Your task to perform on an android device: Open calendar and show me the third week of next month Image 0: 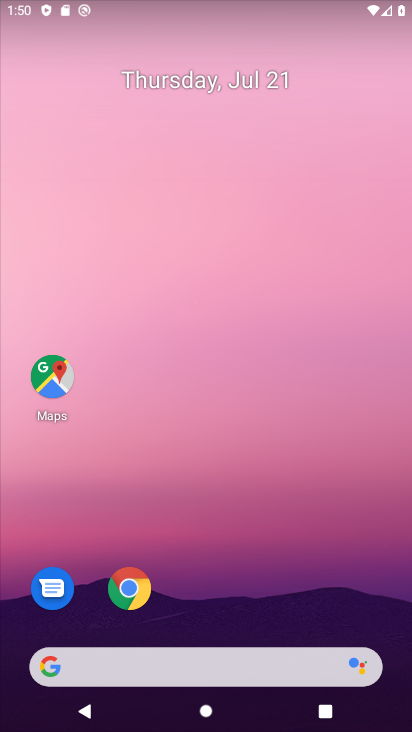
Step 0: drag from (163, 619) to (293, 170)
Your task to perform on an android device: Open calendar and show me the third week of next month Image 1: 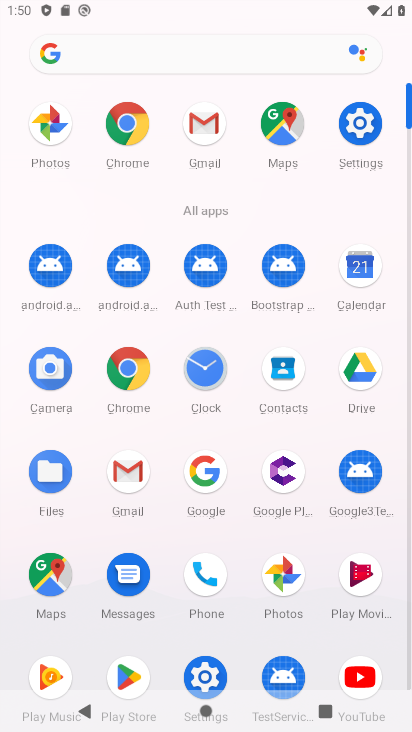
Step 1: click (366, 258)
Your task to perform on an android device: Open calendar and show me the third week of next month Image 2: 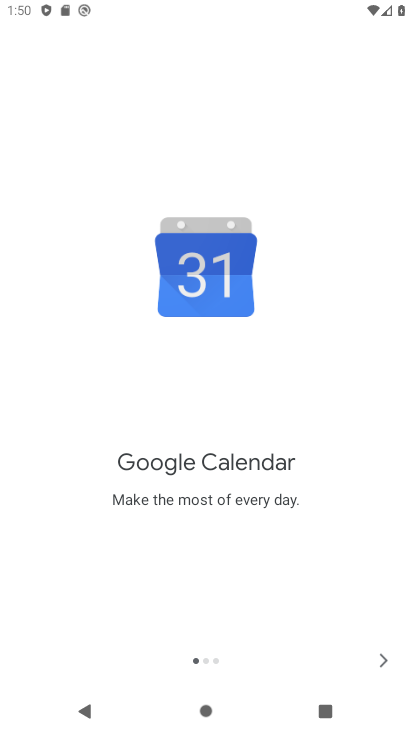
Step 2: click (388, 660)
Your task to perform on an android device: Open calendar and show me the third week of next month Image 3: 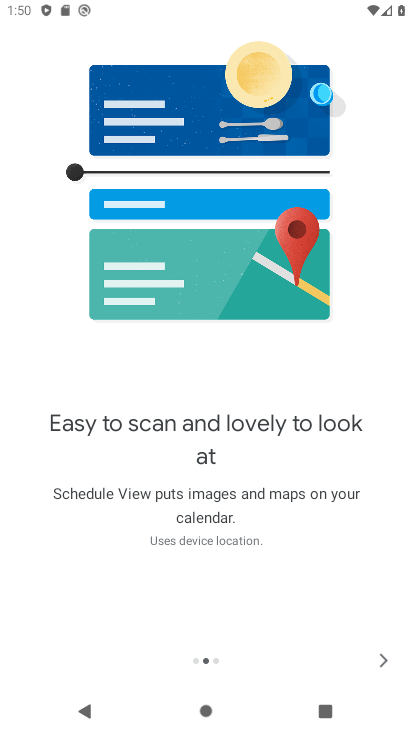
Step 3: click (387, 658)
Your task to perform on an android device: Open calendar and show me the third week of next month Image 4: 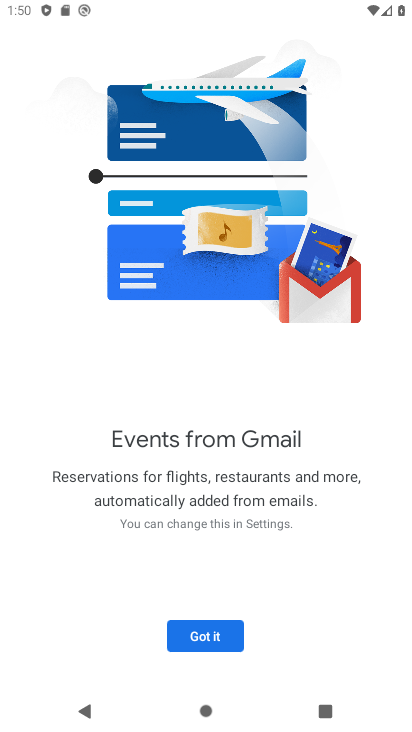
Step 4: click (197, 640)
Your task to perform on an android device: Open calendar and show me the third week of next month Image 5: 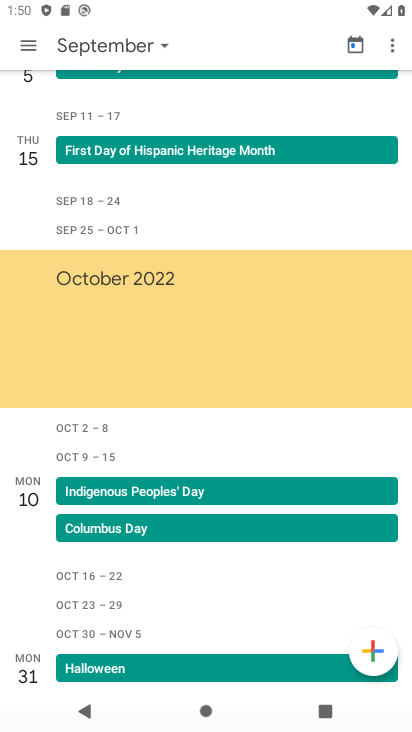
Step 5: click (128, 49)
Your task to perform on an android device: Open calendar and show me the third week of next month Image 6: 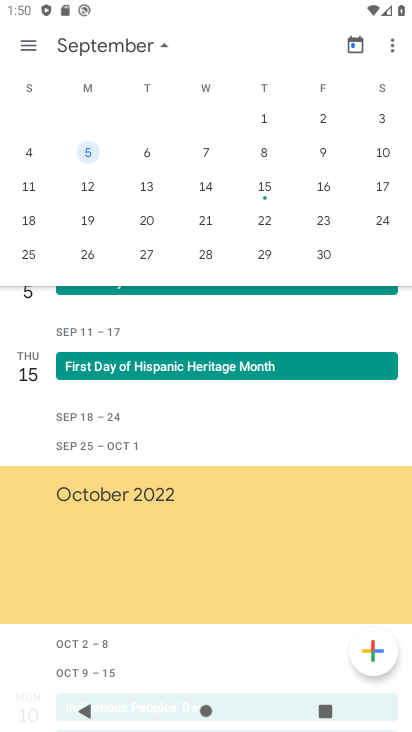
Step 6: drag from (61, 271) to (404, 248)
Your task to perform on an android device: Open calendar and show me the third week of next month Image 7: 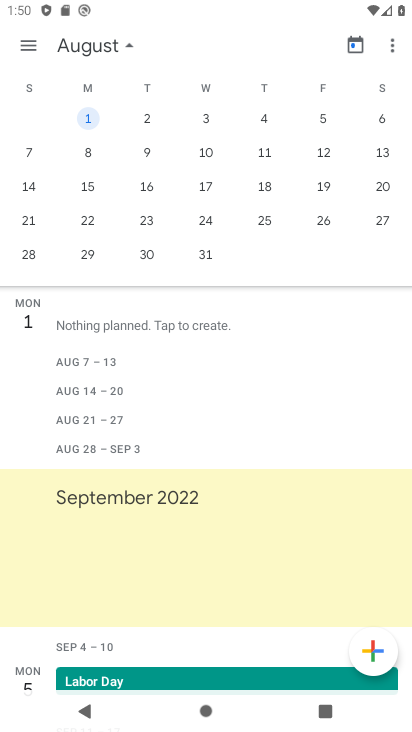
Step 7: click (270, 183)
Your task to perform on an android device: Open calendar and show me the third week of next month Image 8: 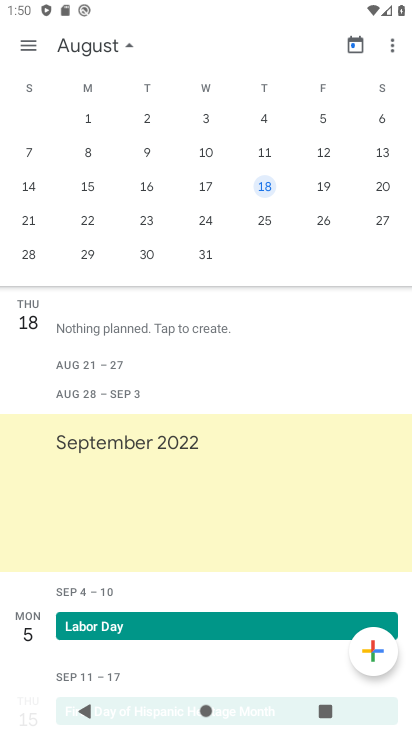
Step 8: task complete